Your task to perform on an android device: open app "Chime – Mobile Banking" Image 0: 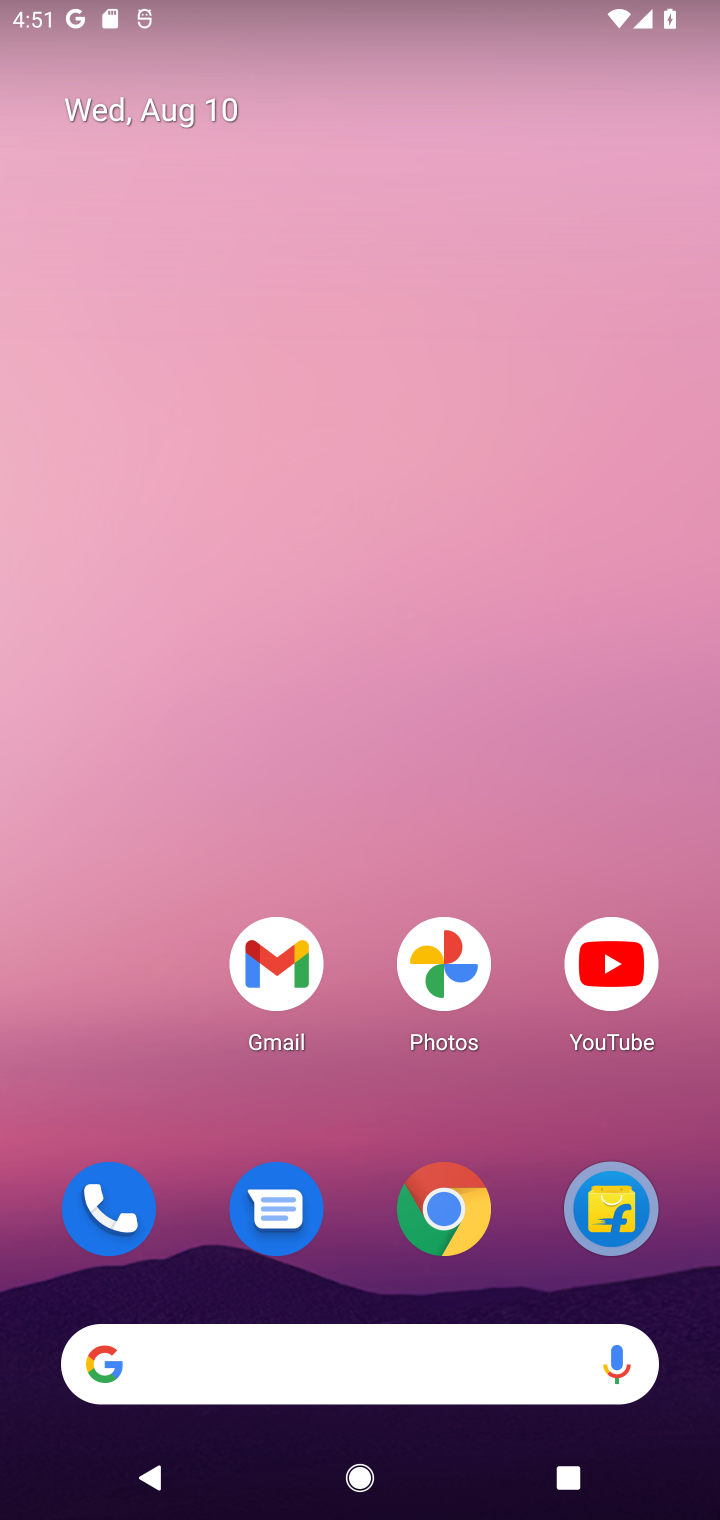
Step 0: drag from (394, 1300) to (428, 185)
Your task to perform on an android device: open app "Chime – Mobile Banking" Image 1: 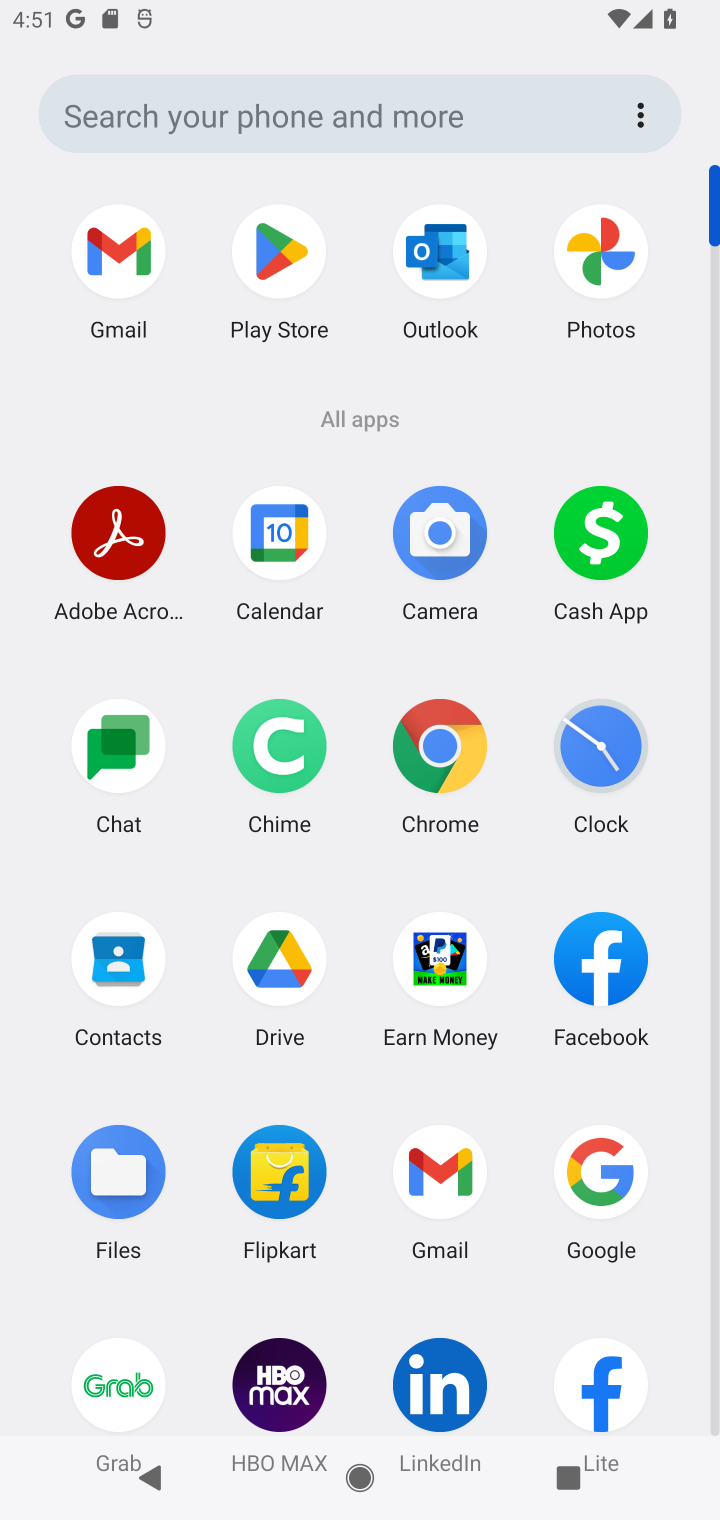
Step 1: click (269, 710)
Your task to perform on an android device: open app "Chime – Mobile Banking" Image 2: 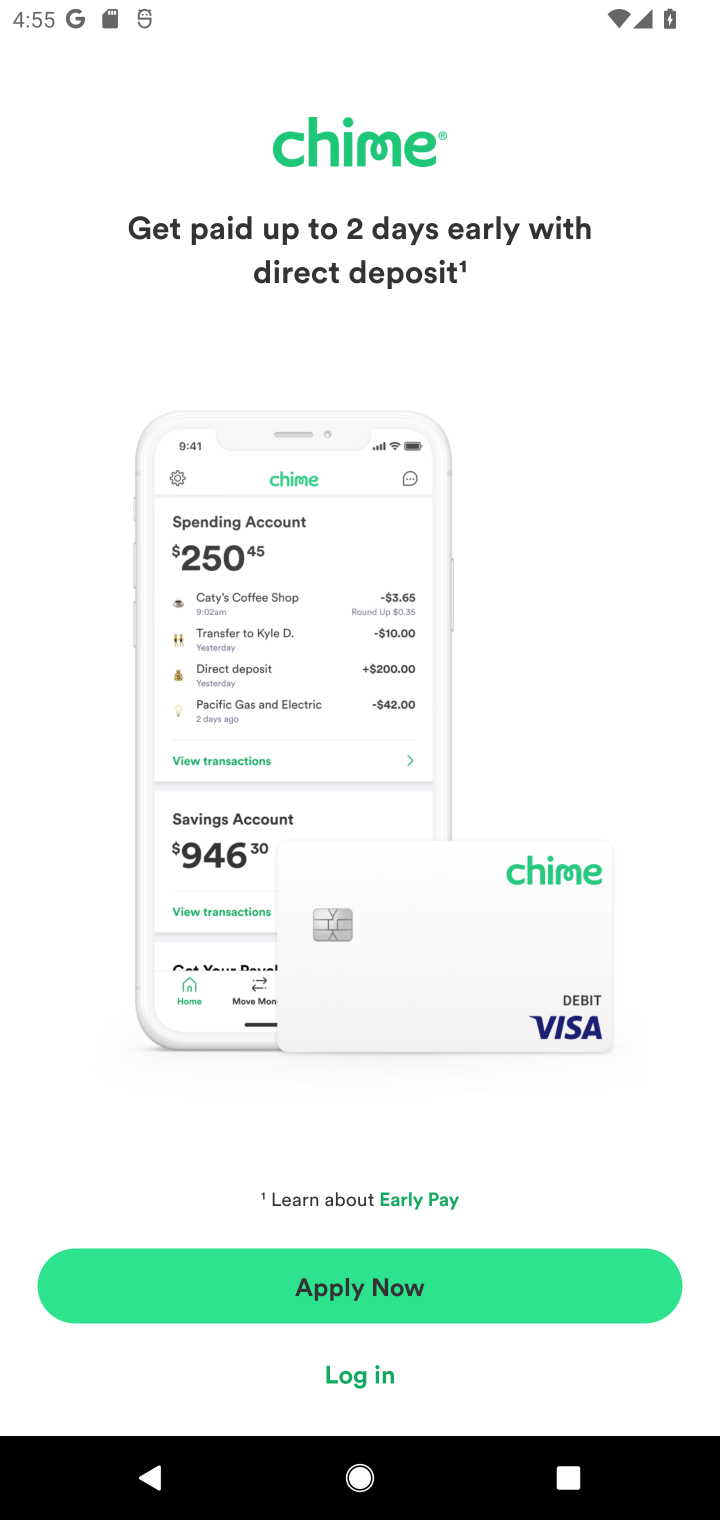
Step 2: task complete